Your task to perform on an android device: Open the phone app and click the voicemail tab. Image 0: 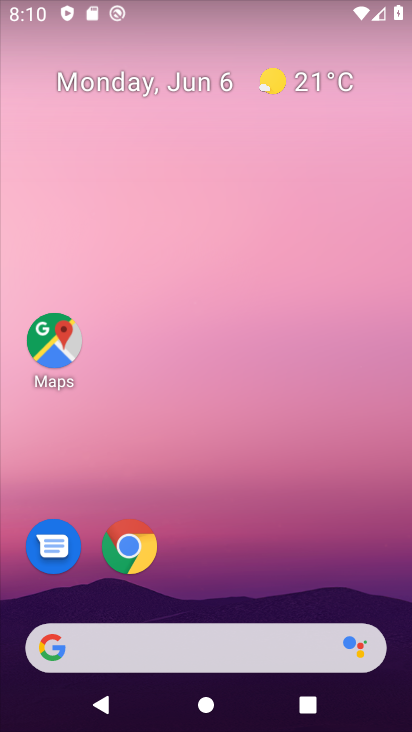
Step 0: task complete